Your task to perform on an android device: Open the Play Movies app and select the watchlist tab. Image 0: 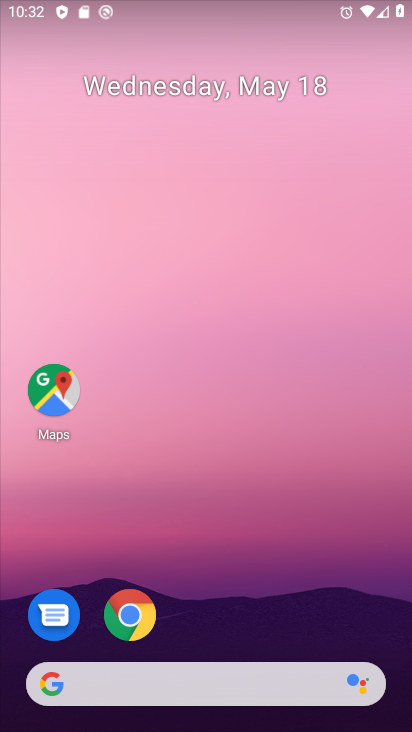
Step 0: task complete